Your task to perform on an android device: manage bookmarks in the chrome app Image 0: 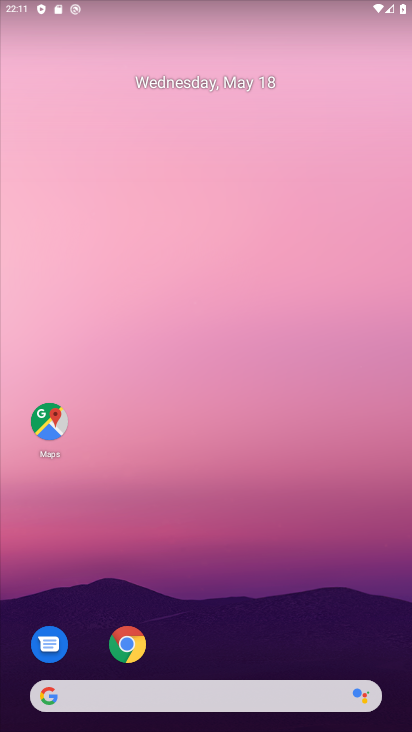
Step 0: drag from (284, 564) to (346, 76)
Your task to perform on an android device: manage bookmarks in the chrome app Image 1: 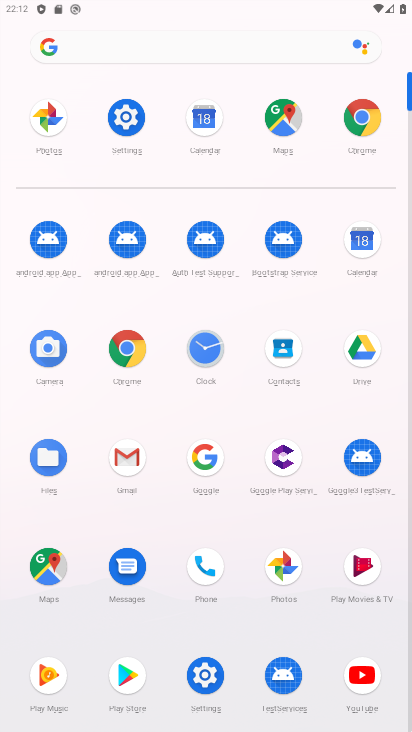
Step 1: click (137, 339)
Your task to perform on an android device: manage bookmarks in the chrome app Image 2: 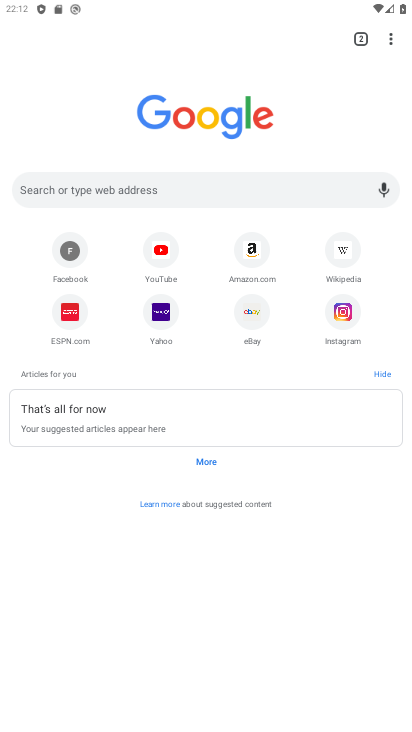
Step 2: task complete